Your task to perform on an android device: allow cookies in the chrome app Image 0: 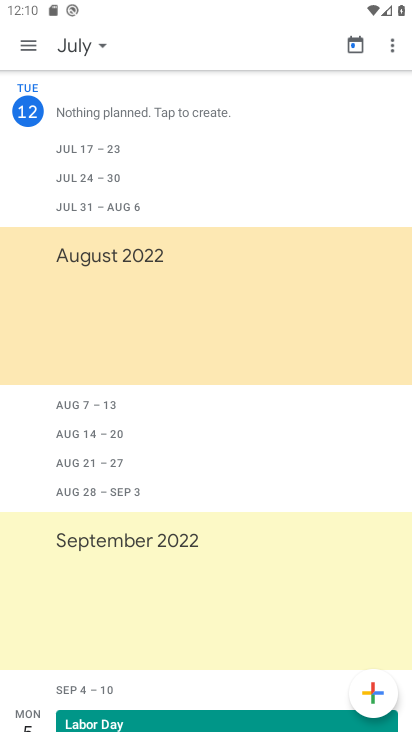
Step 0: press home button
Your task to perform on an android device: allow cookies in the chrome app Image 1: 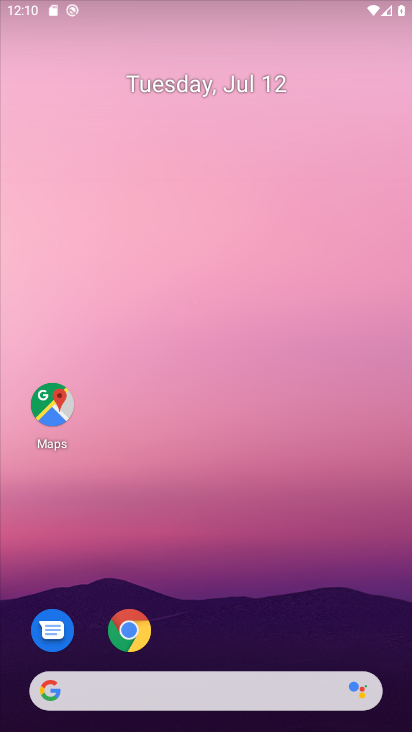
Step 1: click (230, 13)
Your task to perform on an android device: allow cookies in the chrome app Image 2: 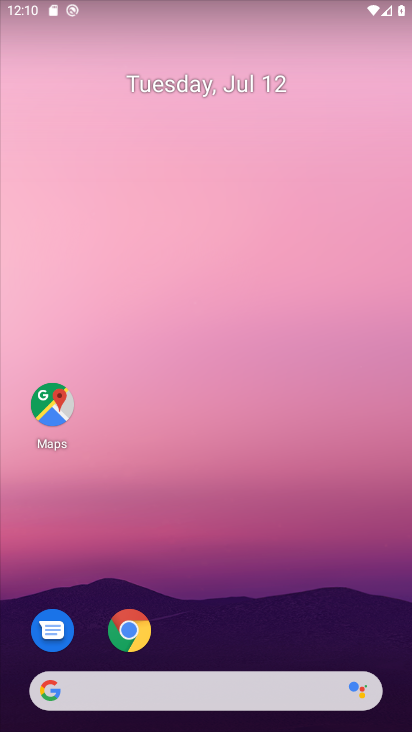
Step 2: click (139, 630)
Your task to perform on an android device: allow cookies in the chrome app Image 3: 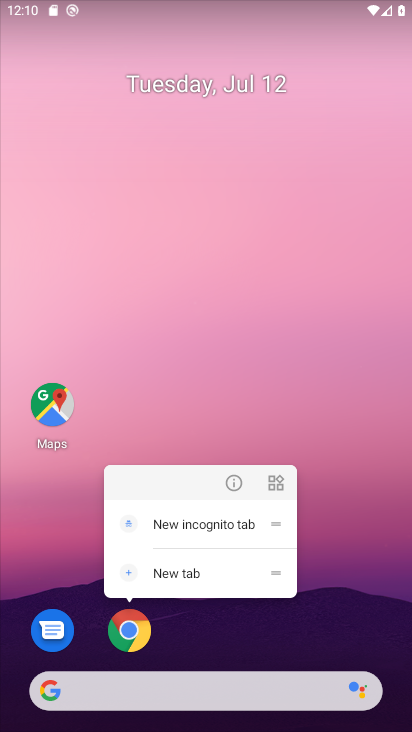
Step 3: click (133, 634)
Your task to perform on an android device: allow cookies in the chrome app Image 4: 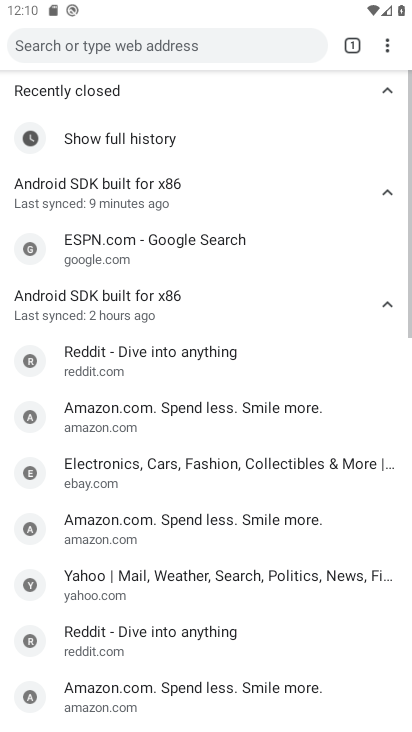
Step 4: click (385, 44)
Your task to perform on an android device: allow cookies in the chrome app Image 5: 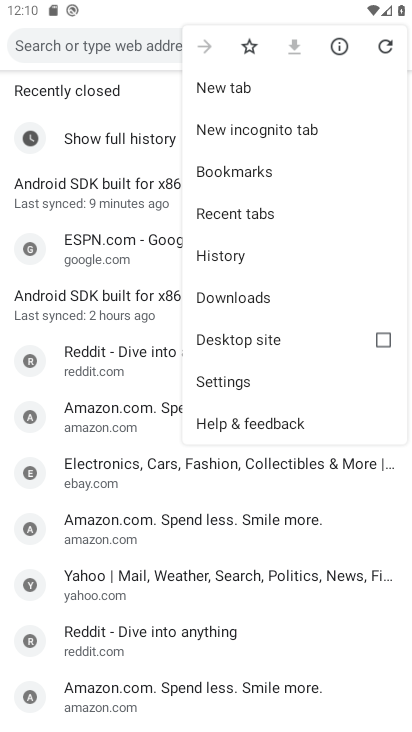
Step 5: click (221, 388)
Your task to perform on an android device: allow cookies in the chrome app Image 6: 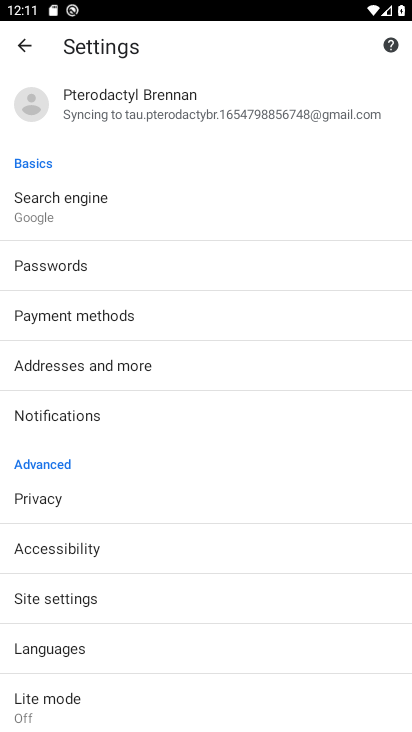
Step 6: click (79, 592)
Your task to perform on an android device: allow cookies in the chrome app Image 7: 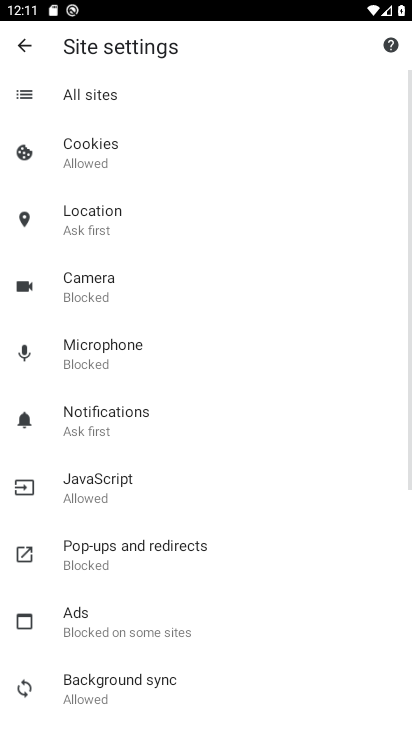
Step 7: click (91, 152)
Your task to perform on an android device: allow cookies in the chrome app Image 8: 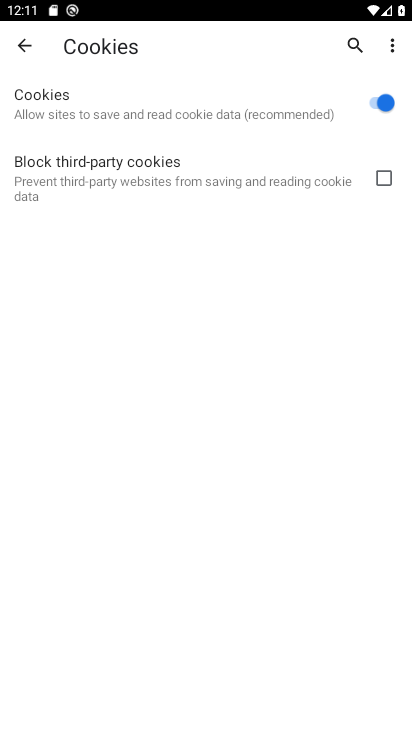
Step 8: task complete